Your task to perform on an android device: change text size in settings app Image 0: 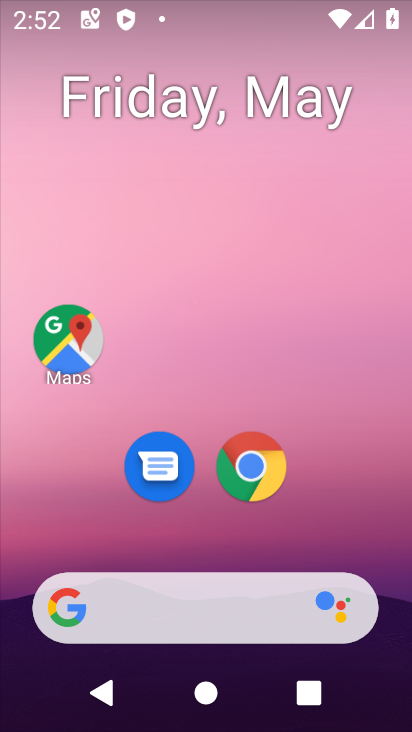
Step 0: drag from (193, 560) to (294, 9)
Your task to perform on an android device: change text size in settings app Image 1: 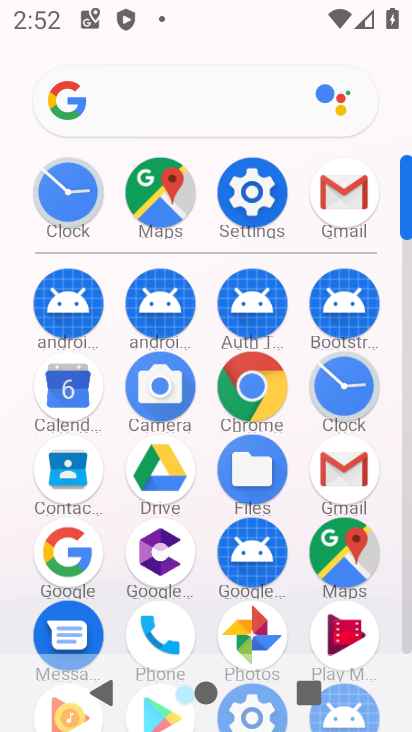
Step 1: click (250, 179)
Your task to perform on an android device: change text size in settings app Image 2: 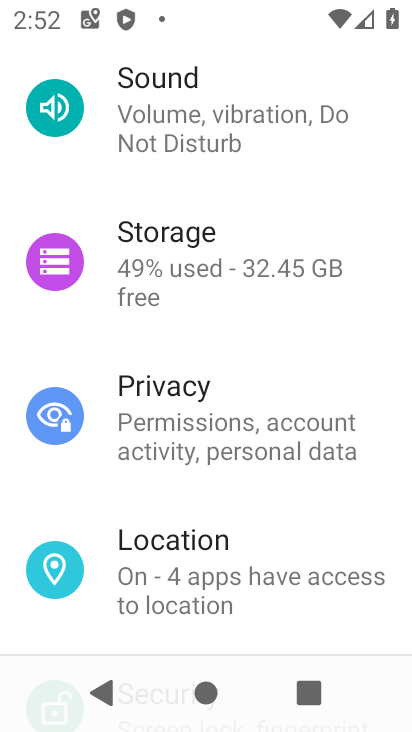
Step 2: drag from (222, 118) to (249, 718)
Your task to perform on an android device: change text size in settings app Image 3: 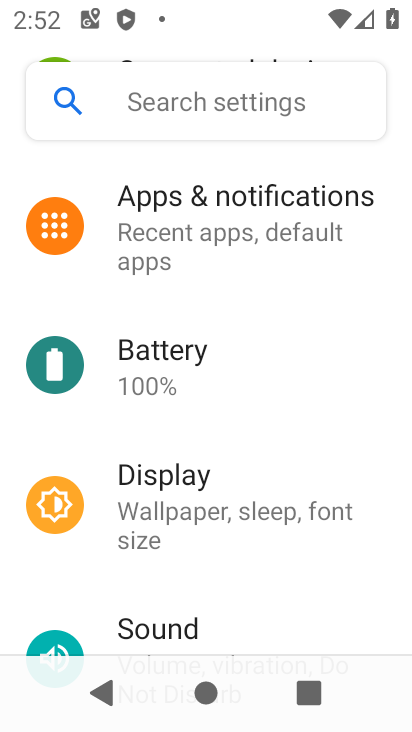
Step 3: click (186, 120)
Your task to perform on an android device: change text size in settings app Image 4: 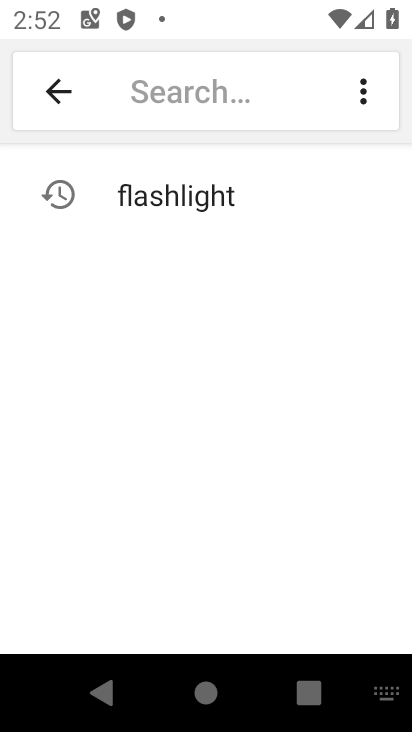
Step 4: type "text size"
Your task to perform on an android device: change text size in settings app Image 5: 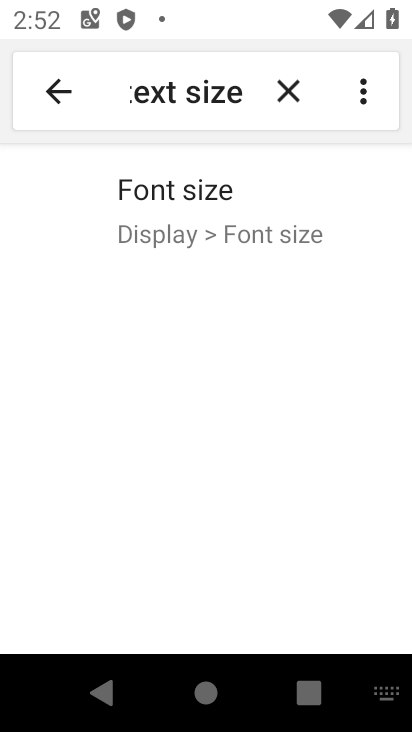
Step 5: click (184, 228)
Your task to perform on an android device: change text size in settings app Image 6: 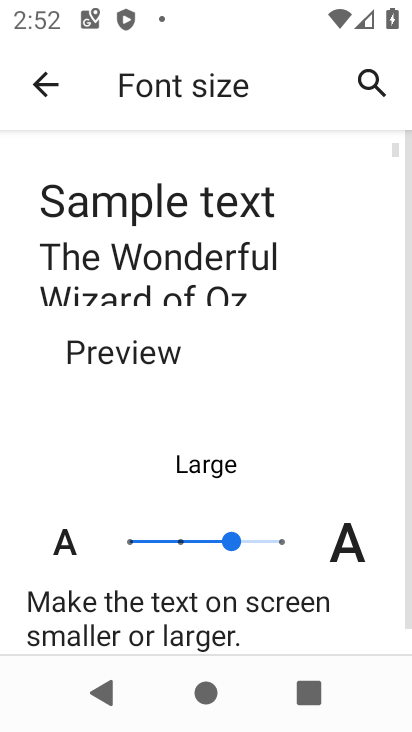
Step 6: task complete